Your task to perform on an android device: What's the weather today? Image 0: 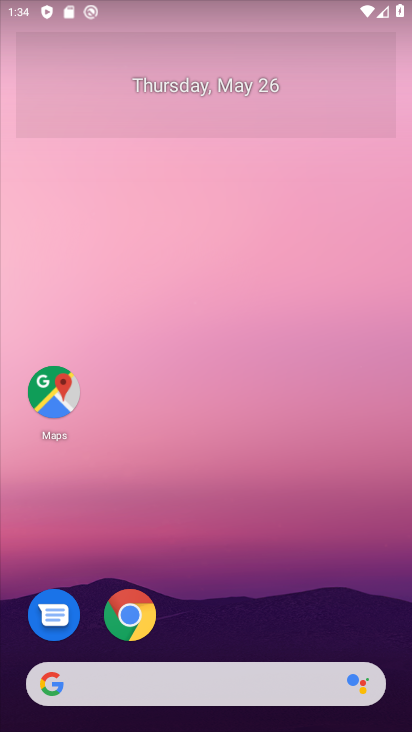
Step 0: drag from (316, 613) to (325, 157)
Your task to perform on an android device: What's the weather today? Image 1: 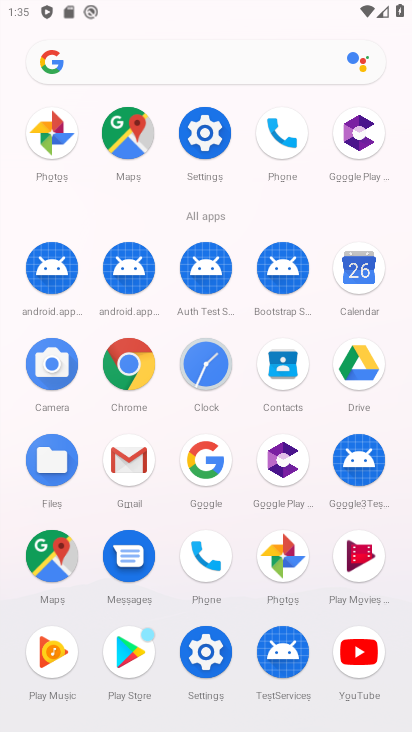
Step 1: drag from (312, 636) to (306, 238)
Your task to perform on an android device: What's the weather today? Image 2: 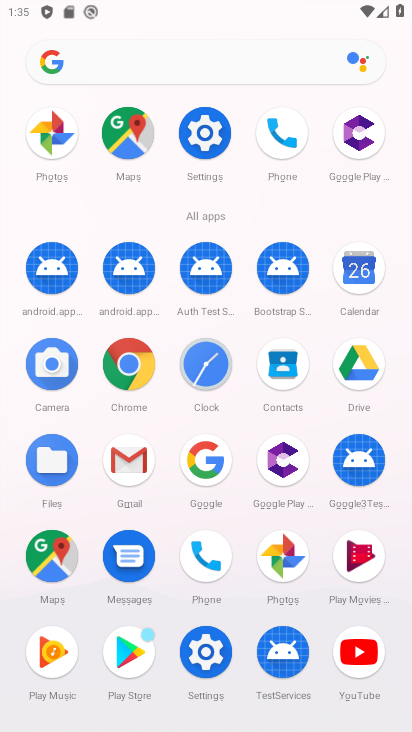
Step 2: click (130, 370)
Your task to perform on an android device: What's the weather today? Image 3: 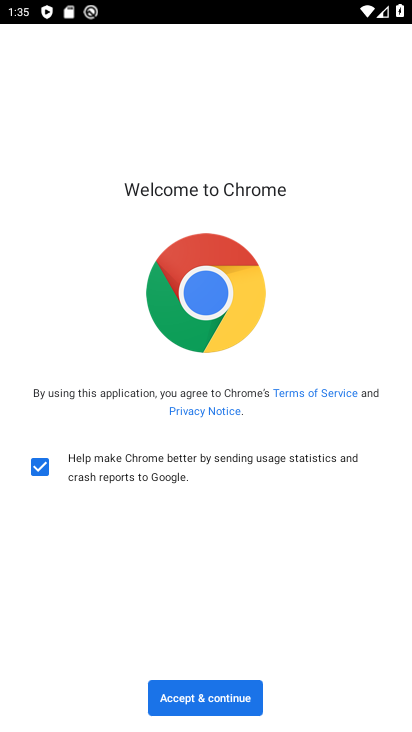
Step 3: click (221, 684)
Your task to perform on an android device: What's the weather today? Image 4: 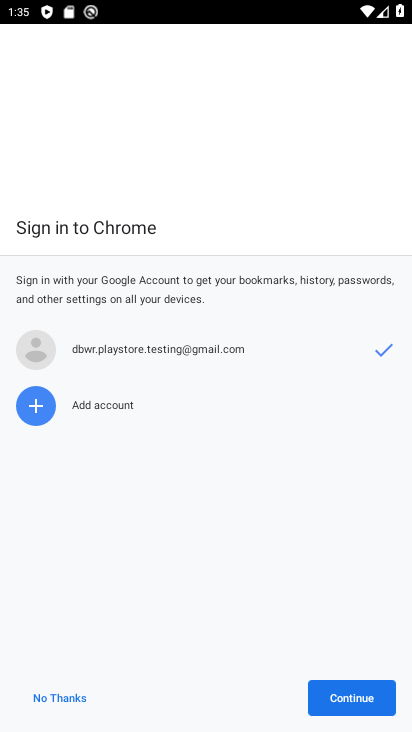
Step 4: click (337, 695)
Your task to perform on an android device: What's the weather today? Image 5: 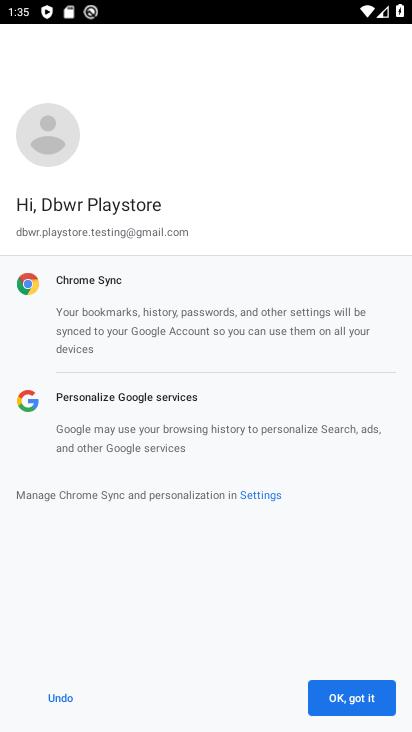
Step 5: click (337, 695)
Your task to perform on an android device: What's the weather today? Image 6: 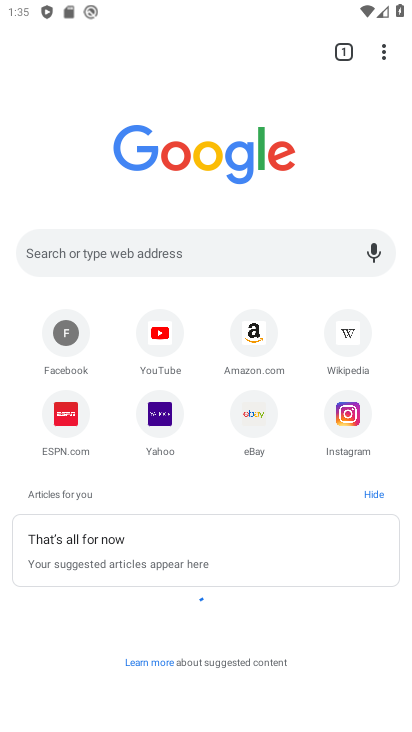
Step 6: click (201, 254)
Your task to perform on an android device: What's the weather today? Image 7: 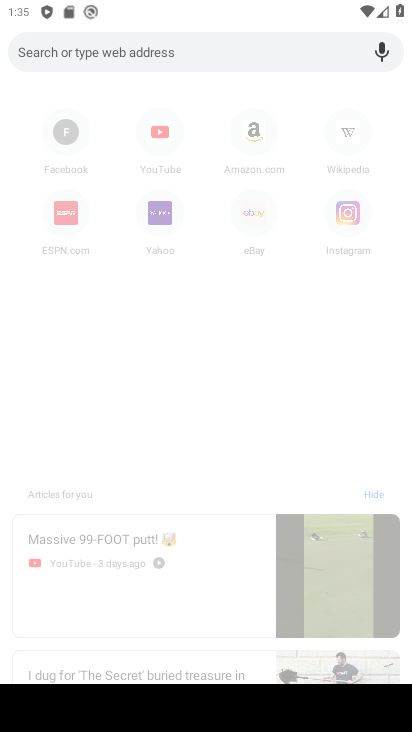
Step 7: type "what's thr weather today"
Your task to perform on an android device: What's the weather today? Image 8: 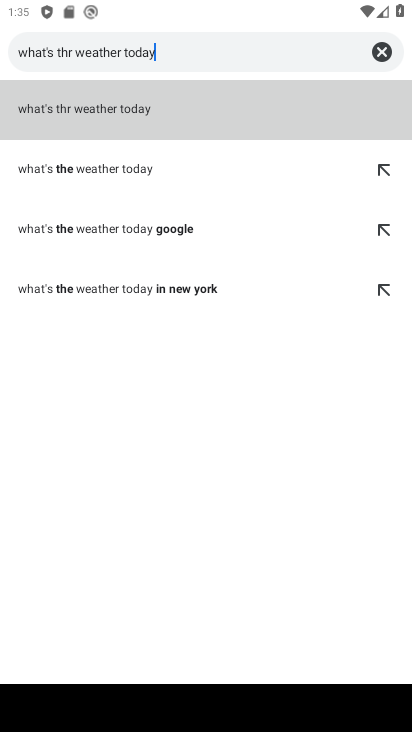
Step 8: click (152, 109)
Your task to perform on an android device: What's the weather today? Image 9: 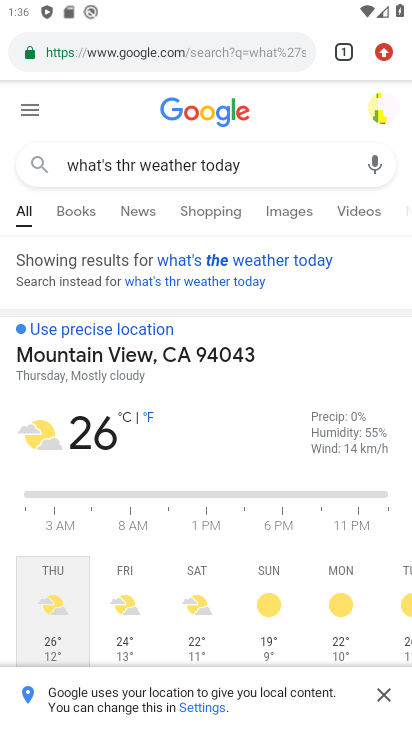
Step 9: task complete